Your task to perform on an android device: add a contact Image 0: 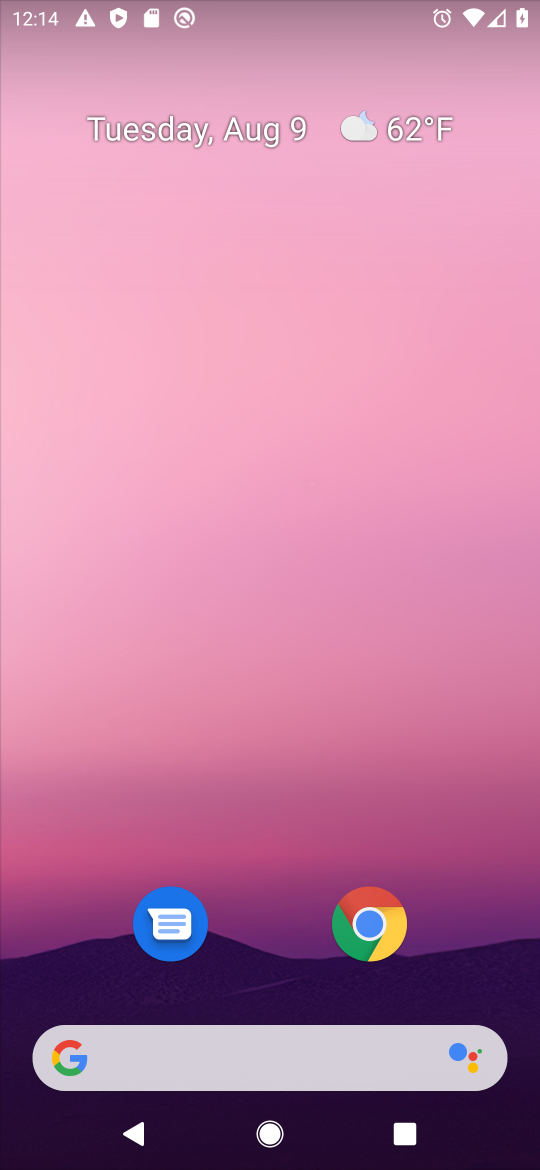
Step 0: drag from (278, 1008) to (242, 188)
Your task to perform on an android device: add a contact Image 1: 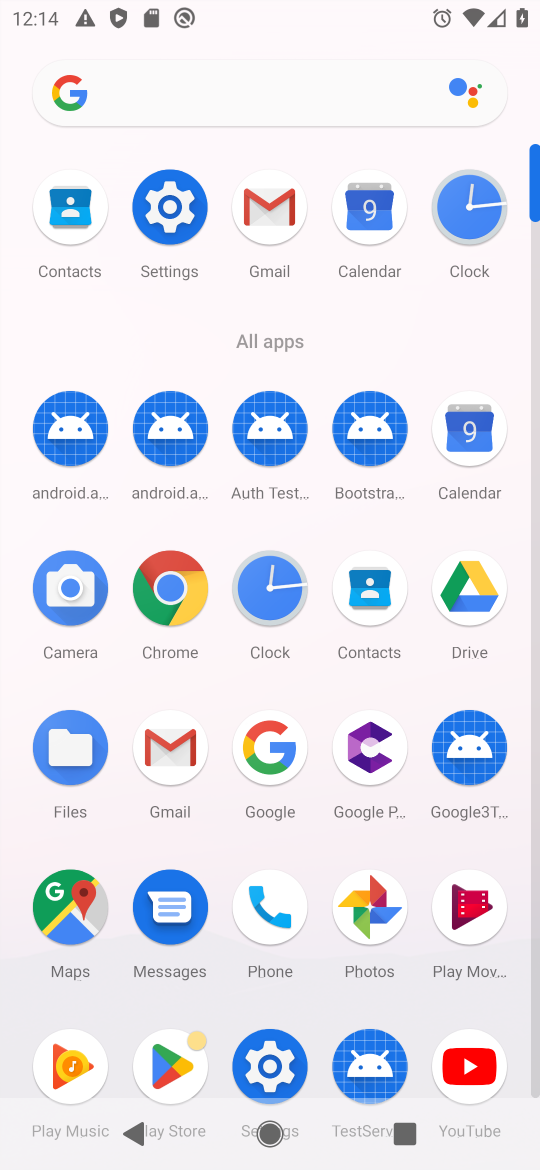
Step 1: click (49, 250)
Your task to perform on an android device: add a contact Image 2: 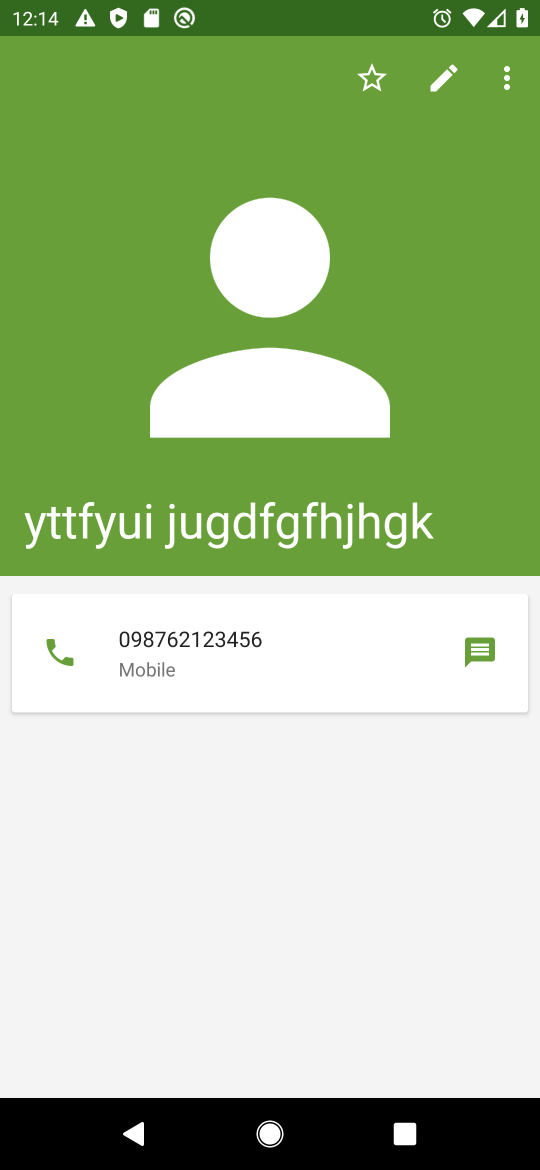
Step 2: press back button
Your task to perform on an android device: add a contact Image 3: 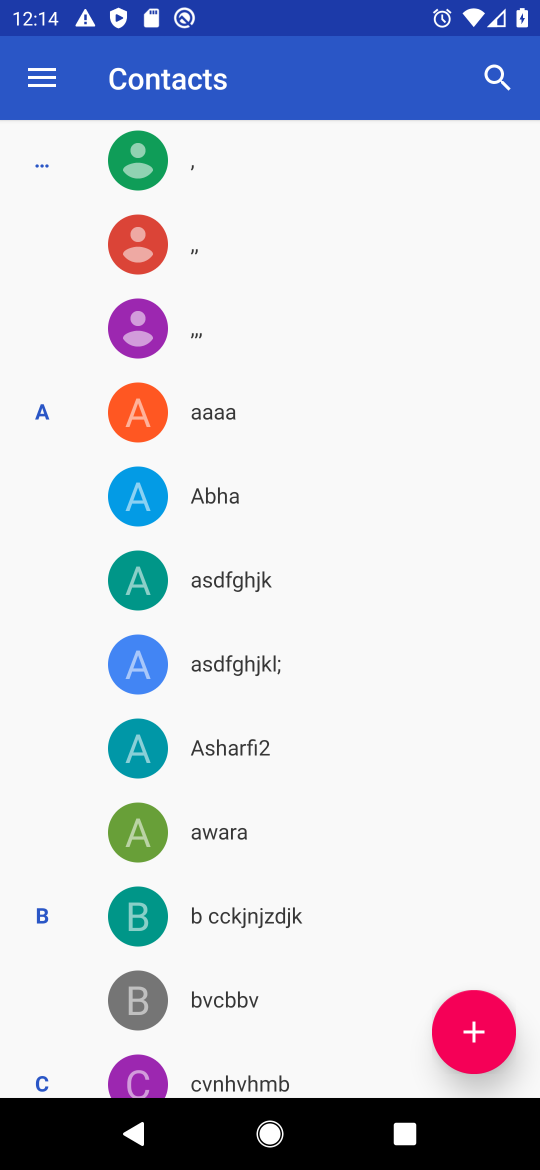
Step 3: click (446, 1015)
Your task to perform on an android device: add a contact Image 4: 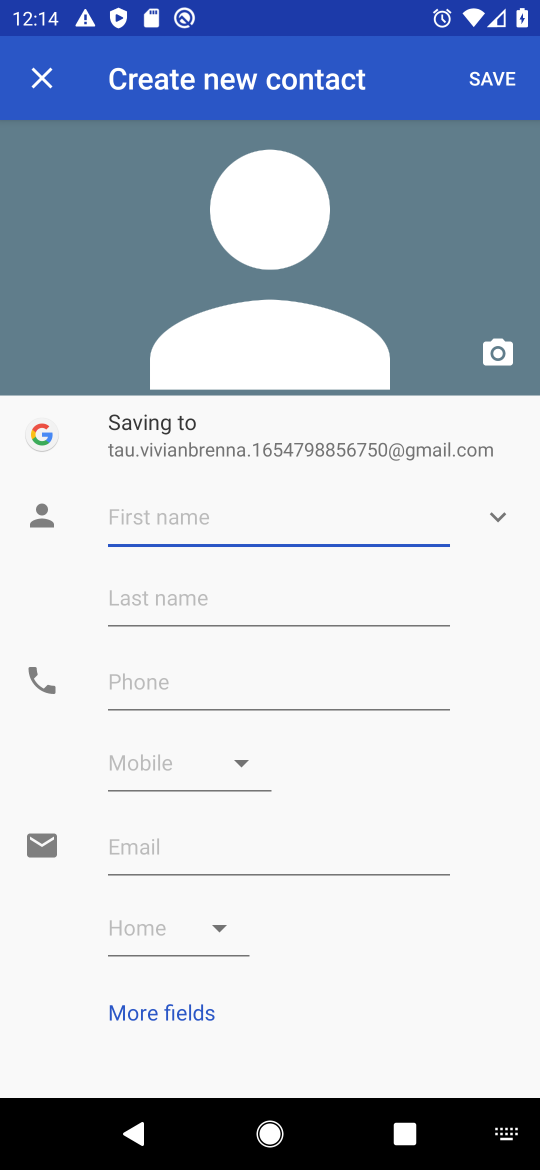
Step 4: type "awddsfdgf"
Your task to perform on an android device: add a contact Image 5: 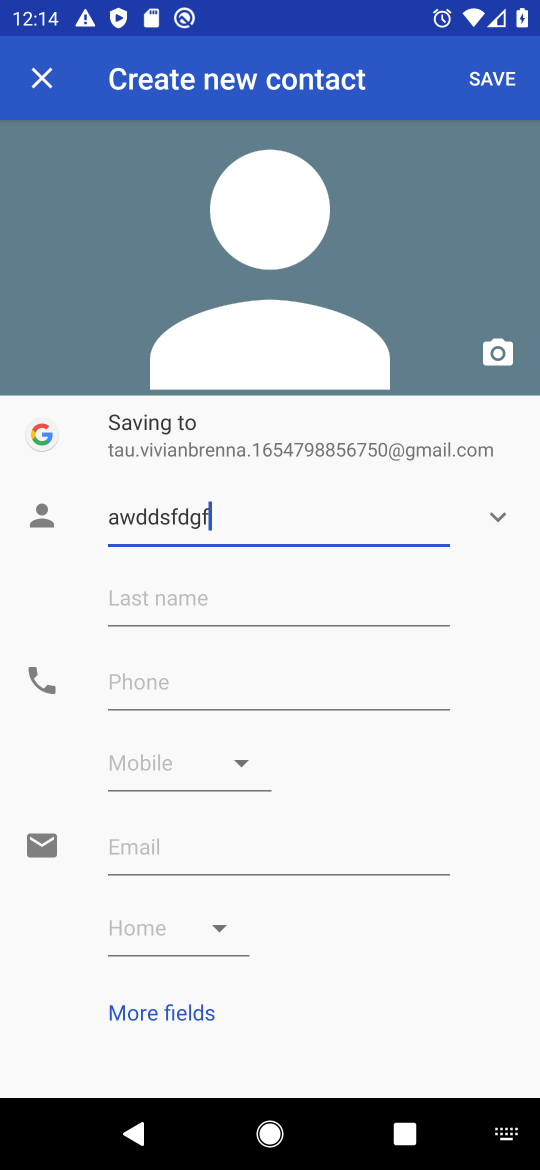
Step 5: click (250, 588)
Your task to perform on an android device: add a contact Image 6: 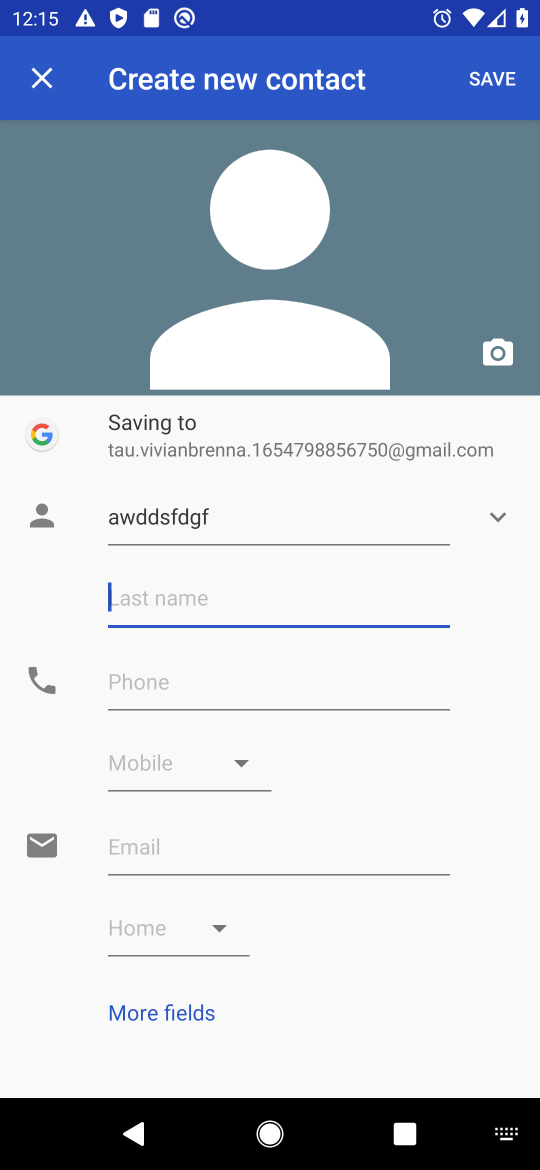
Step 6: type "scfdg"
Your task to perform on an android device: add a contact Image 7: 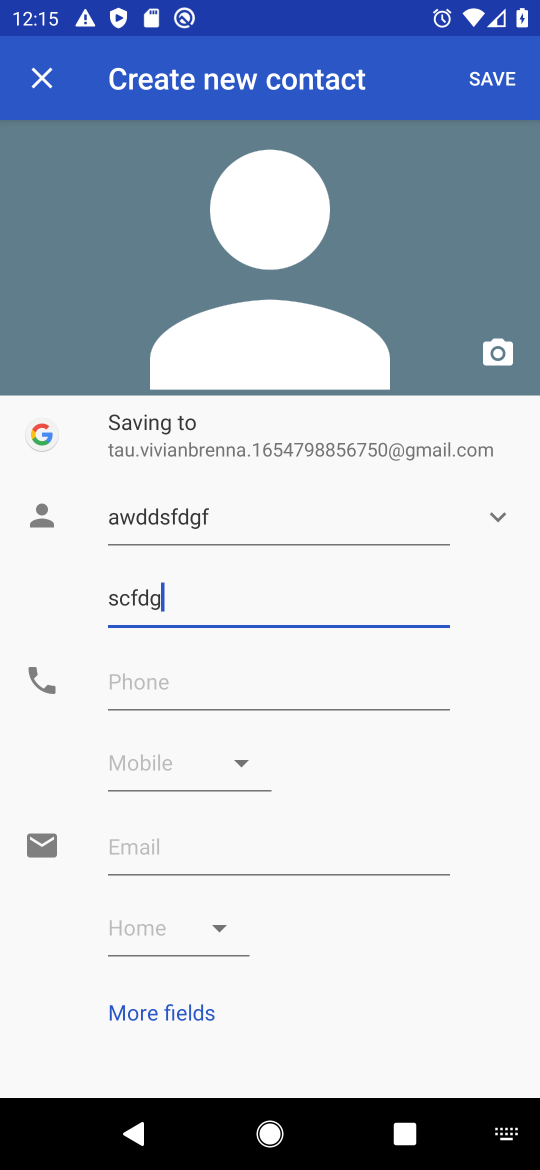
Step 7: click (414, 684)
Your task to perform on an android device: add a contact Image 8: 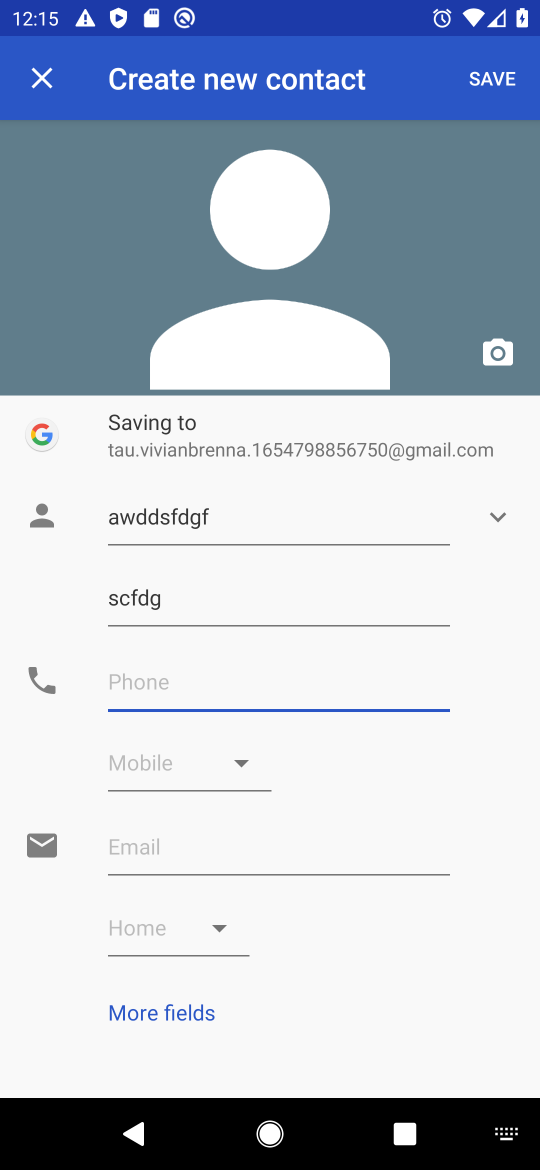
Step 8: type "0987654321"
Your task to perform on an android device: add a contact Image 9: 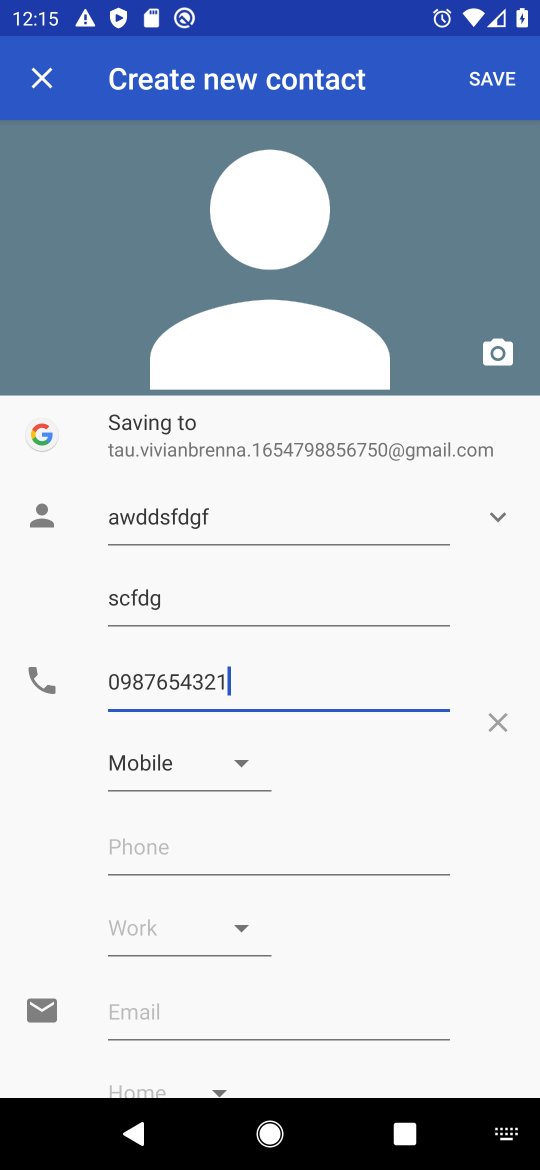
Step 9: click (465, 86)
Your task to perform on an android device: add a contact Image 10: 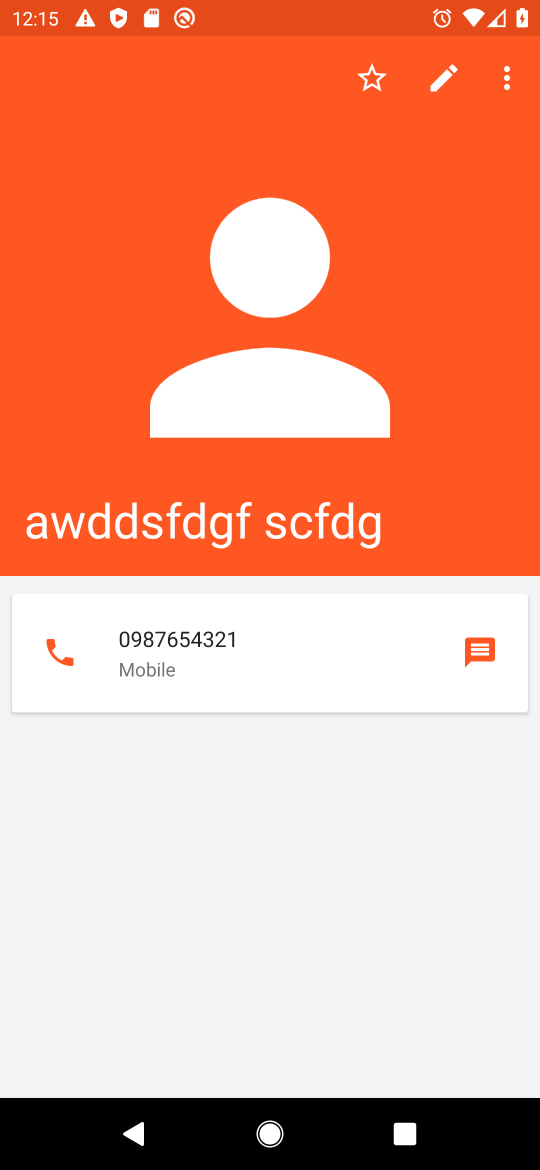
Step 10: task complete